Your task to perform on an android device: turn on bluetooth scan Image 0: 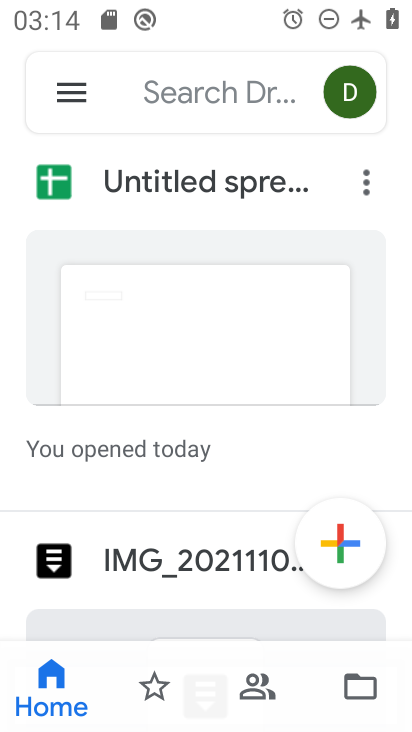
Step 0: press home button
Your task to perform on an android device: turn on bluetooth scan Image 1: 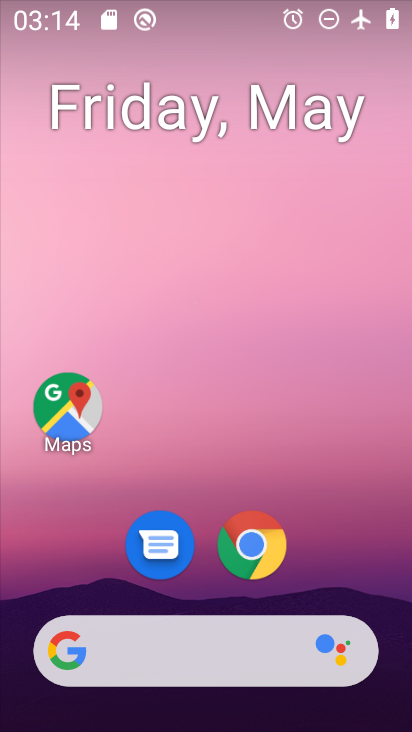
Step 1: drag from (344, 584) to (250, 212)
Your task to perform on an android device: turn on bluetooth scan Image 2: 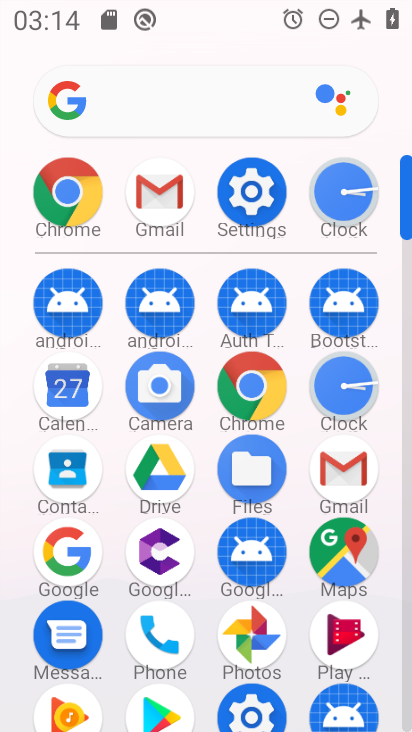
Step 2: click (243, 194)
Your task to perform on an android device: turn on bluetooth scan Image 3: 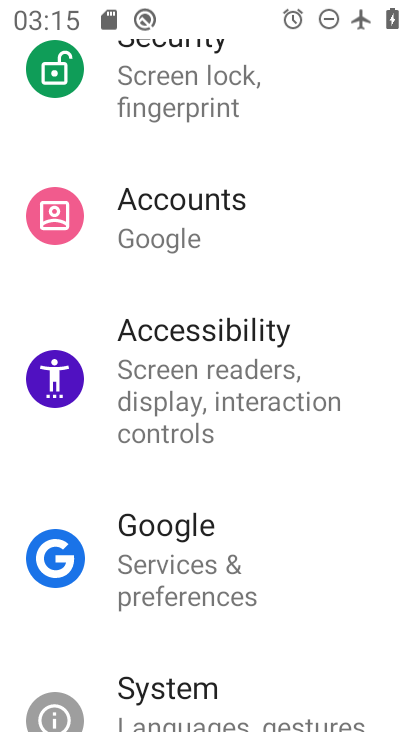
Step 3: drag from (216, 157) to (229, 519)
Your task to perform on an android device: turn on bluetooth scan Image 4: 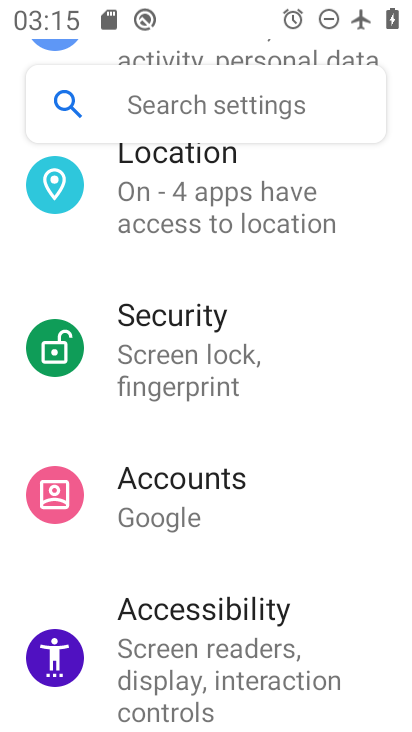
Step 4: click (158, 92)
Your task to perform on an android device: turn on bluetooth scan Image 5: 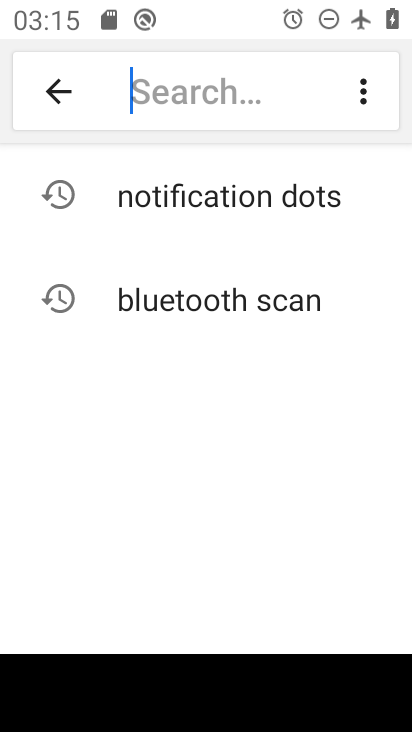
Step 5: click (174, 294)
Your task to perform on an android device: turn on bluetooth scan Image 6: 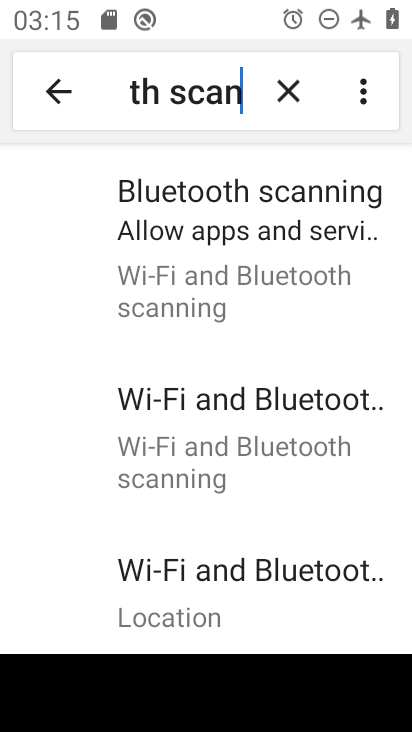
Step 6: click (242, 219)
Your task to perform on an android device: turn on bluetooth scan Image 7: 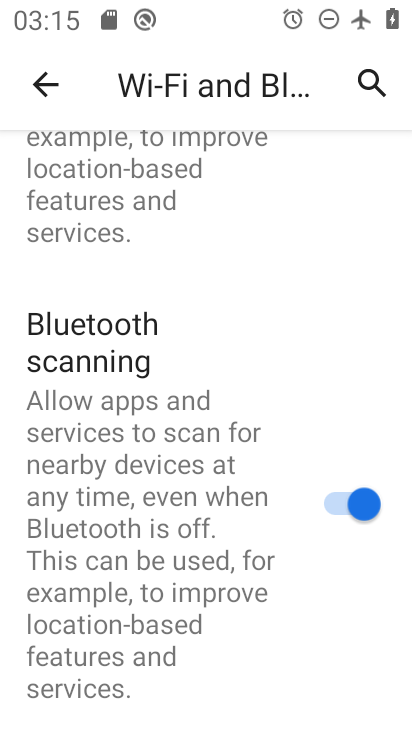
Step 7: task complete